Your task to perform on an android device: remove spam from my inbox in the gmail app Image 0: 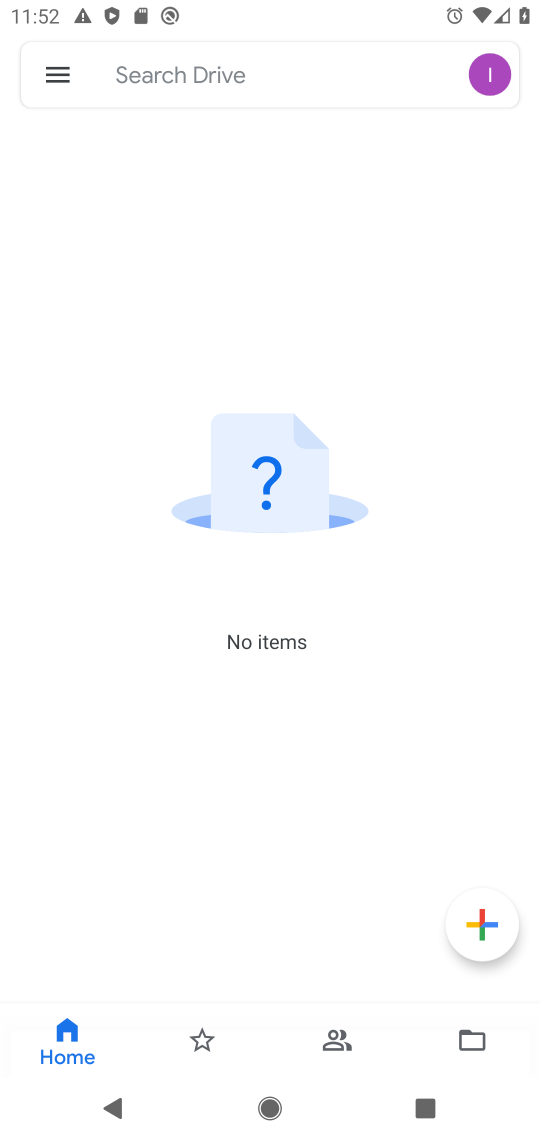
Step 0: press home button
Your task to perform on an android device: remove spam from my inbox in the gmail app Image 1: 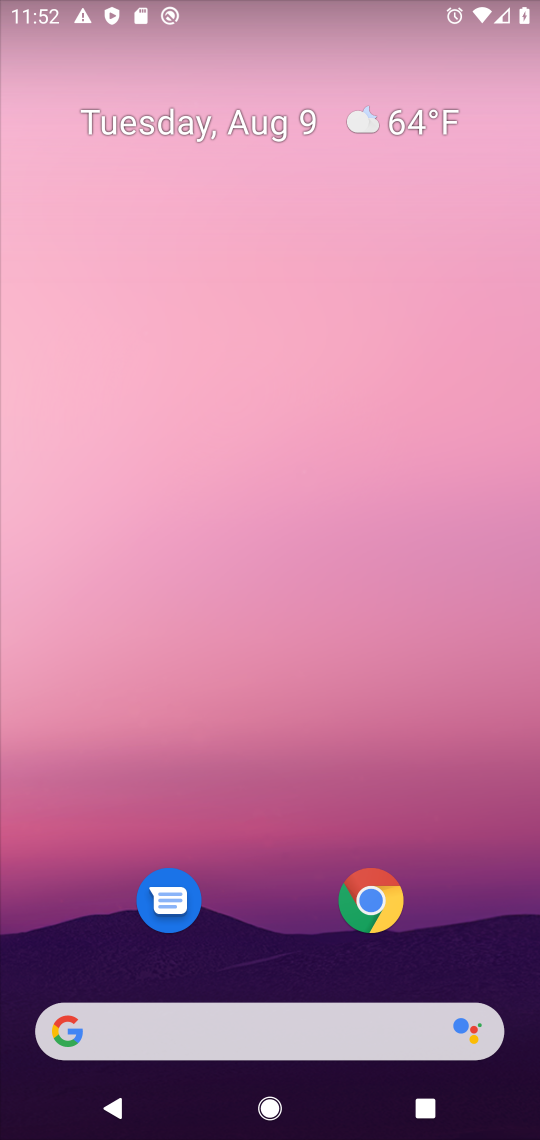
Step 1: drag from (251, 928) to (347, 66)
Your task to perform on an android device: remove spam from my inbox in the gmail app Image 2: 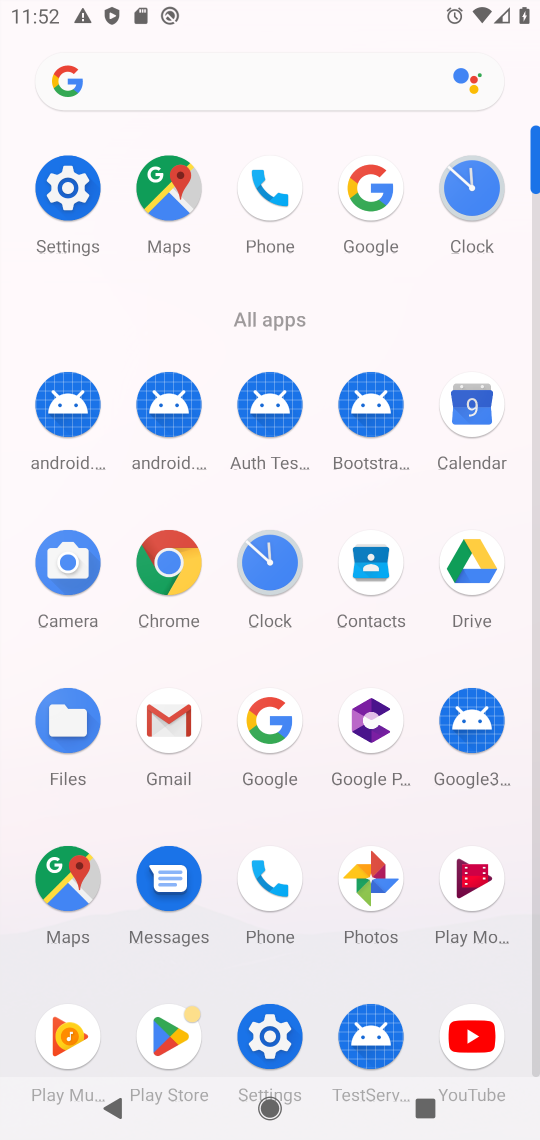
Step 2: click (179, 723)
Your task to perform on an android device: remove spam from my inbox in the gmail app Image 3: 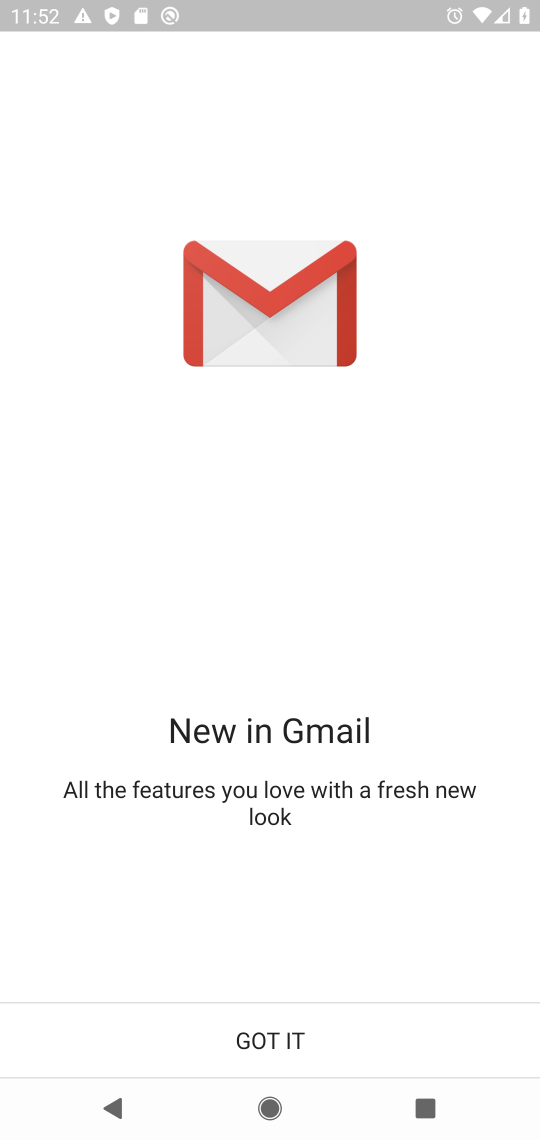
Step 3: click (269, 1041)
Your task to perform on an android device: remove spam from my inbox in the gmail app Image 4: 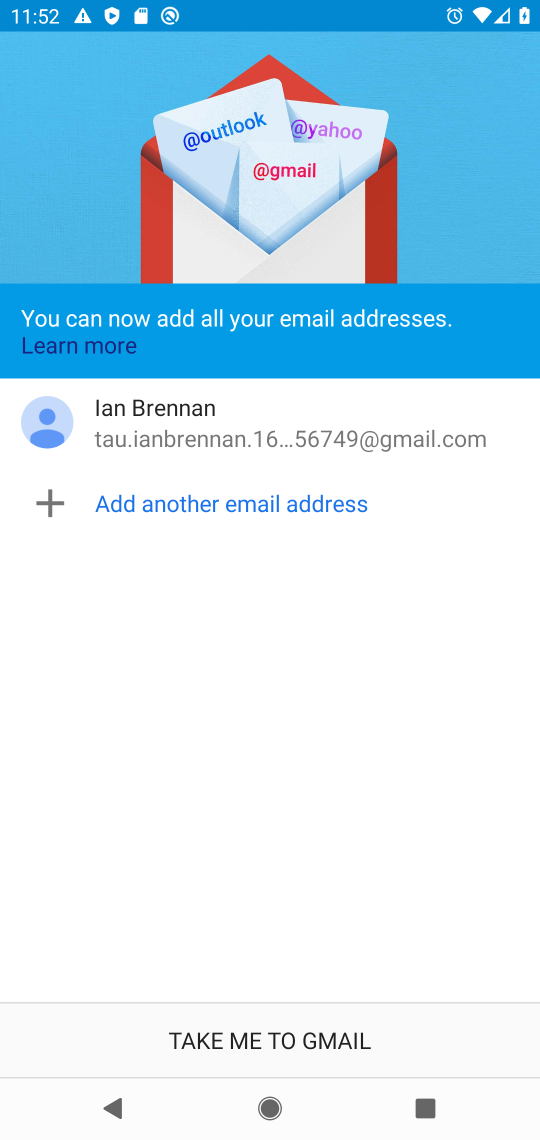
Step 4: click (269, 1039)
Your task to perform on an android device: remove spam from my inbox in the gmail app Image 5: 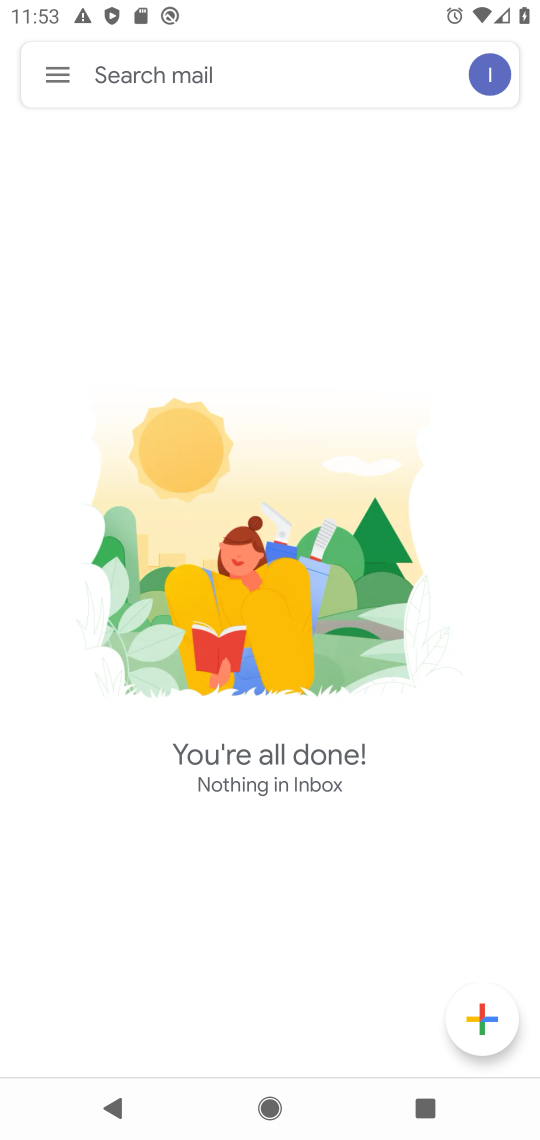
Step 5: task complete